Your task to perform on an android device: Open ESPN.com Image 0: 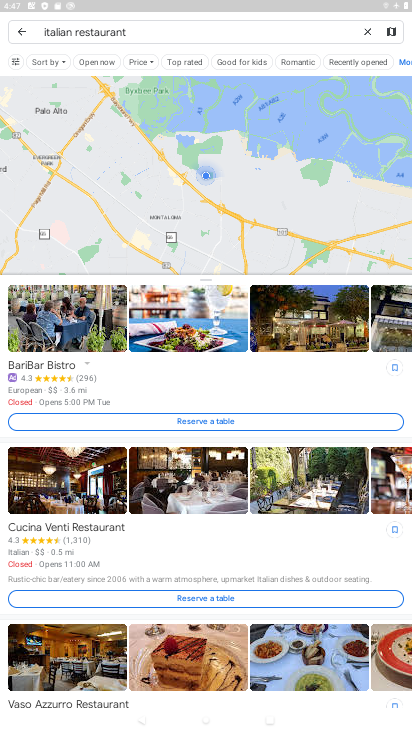
Step 0: press home button
Your task to perform on an android device: Open ESPN.com Image 1: 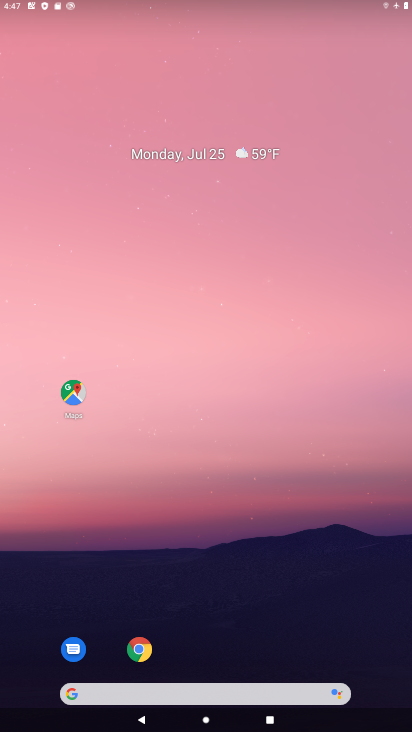
Step 1: drag from (270, 607) to (166, 0)
Your task to perform on an android device: Open ESPN.com Image 2: 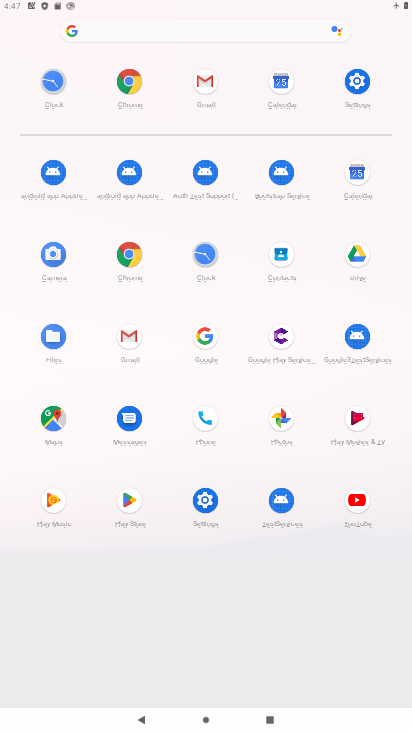
Step 2: click (128, 255)
Your task to perform on an android device: Open ESPN.com Image 3: 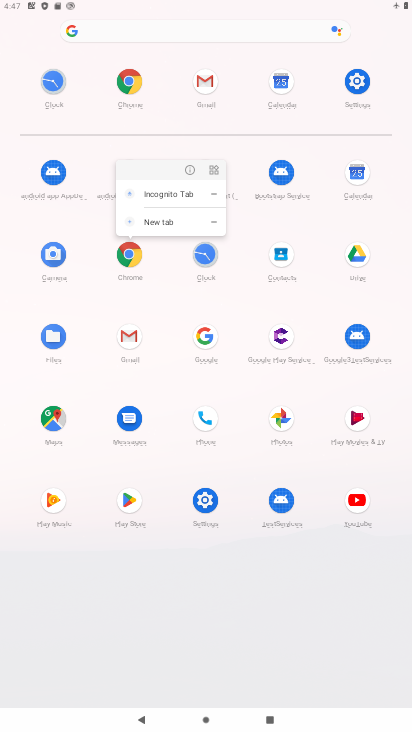
Step 3: click (130, 253)
Your task to perform on an android device: Open ESPN.com Image 4: 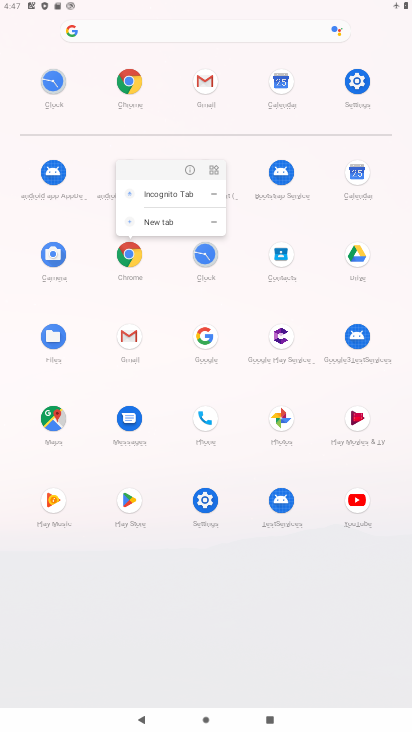
Step 4: click (134, 260)
Your task to perform on an android device: Open ESPN.com Image 5: 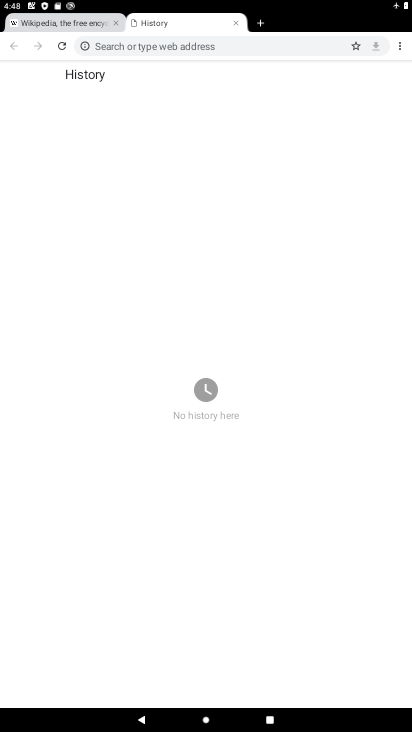
Step 5: click (16, 46)
Your task to perform on an android device: Open ESPN.com Image 6: 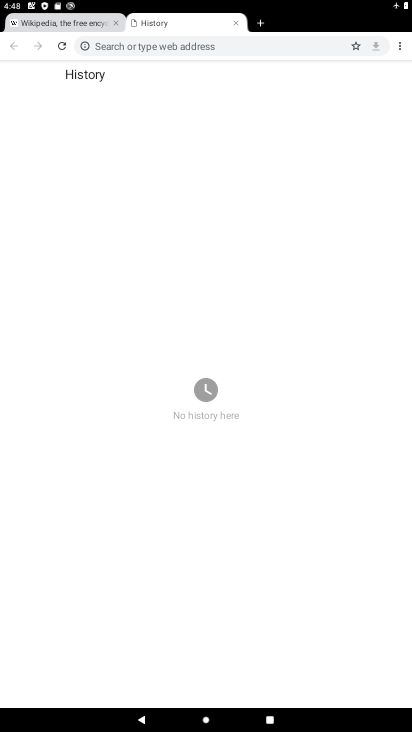
Step 6: click (265, 32)
Your task to perform on an android device: Open ESPN.com Image 7: 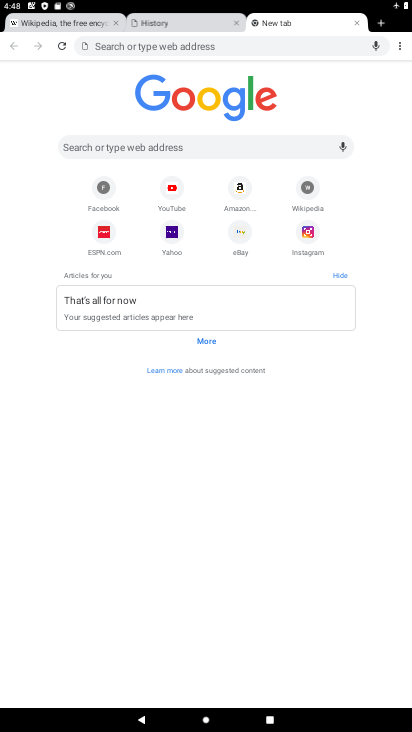
Step 7: click (91, 235)
Your task to perform on an android device: Open ESPN.com Image 8: 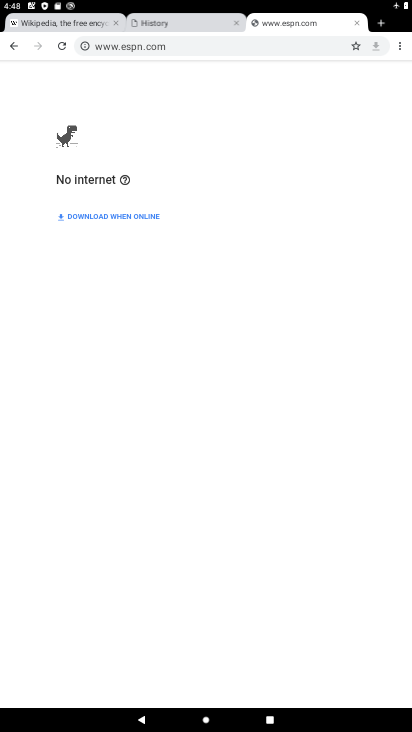
Step 8: task complete